Your task to perform on an android device: toggle sleep mode Image 0: 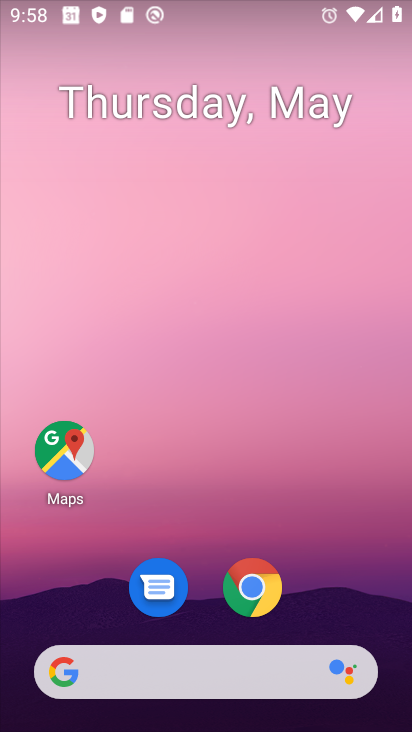
Step 0: drag from (391, 625) to (285, 73)
Your task to perform on an android device: toggle sleep mode Image 1: 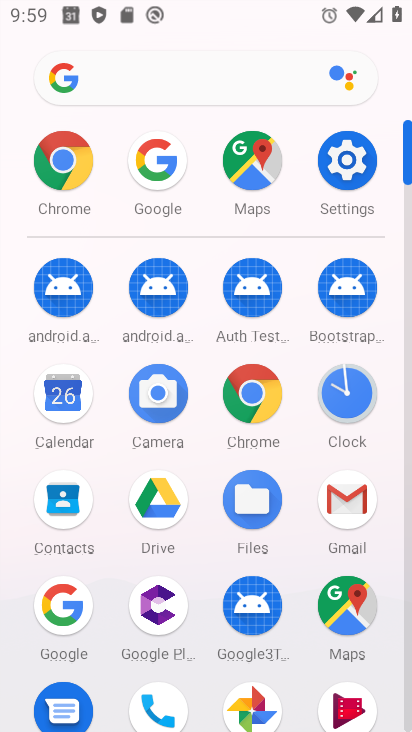
Step 1: click (357, 179)
Your task to perform on an android device: toggle sleep mode Image 2: 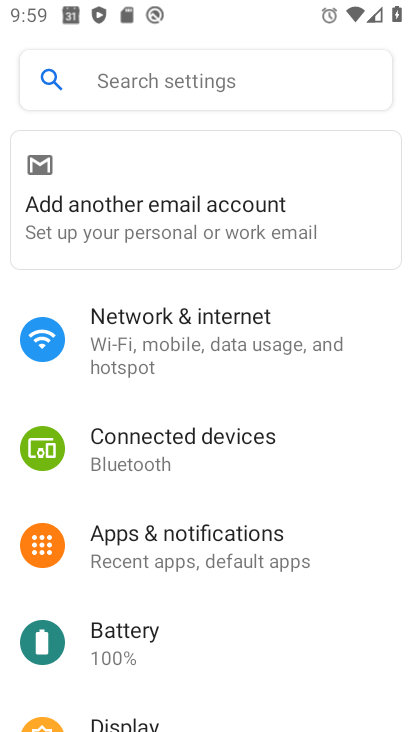
Step 2: task complete